Your task to perform on an android device: Open calendar and show me the first week of next month Image 0: 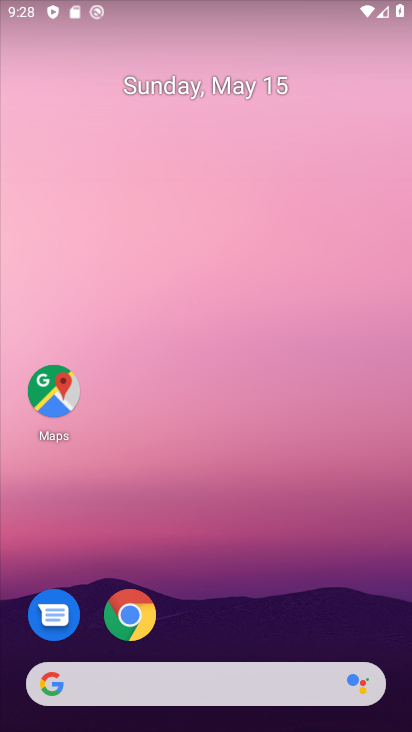
Step 0: drag from (177, 659) to (277, 194)
Your task to perform on an android device: Open calendar and show me the first week of next month Image 1: 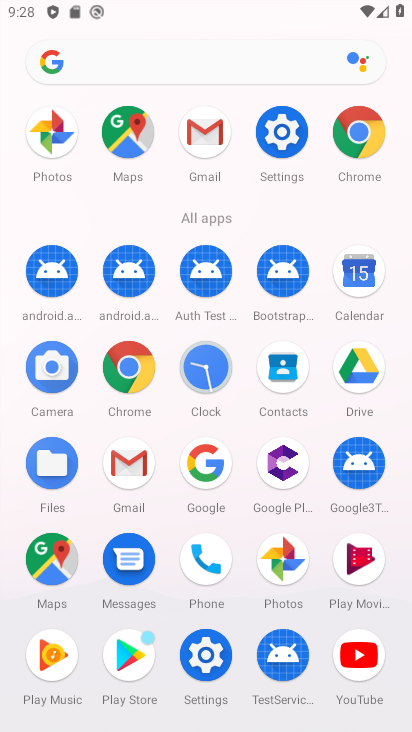
Step 1: click (368, 285)
Your task to perform on an android device: Open calendar and show me the first week of next month Image 2: 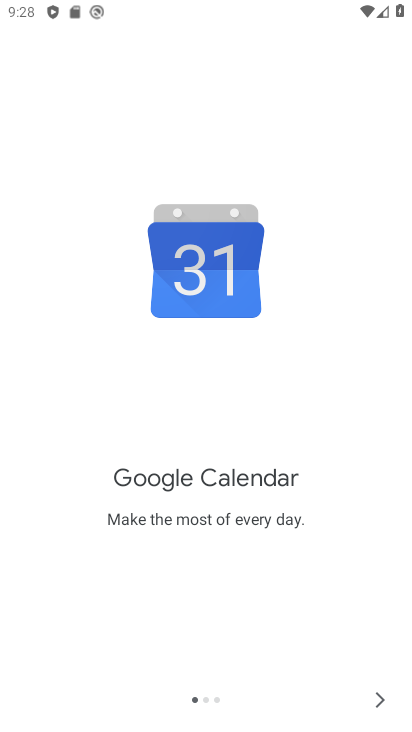
Step 2: click (389, 704)
Your task to perform on an android device: Open calendar and show me the first week of next month Image 3: 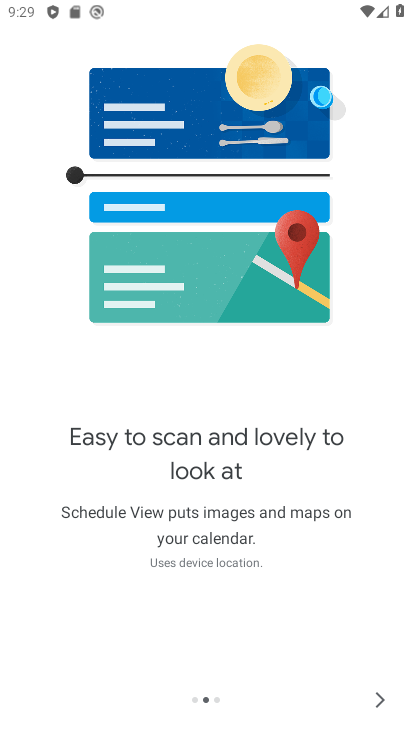
Step 3: click (389, 704)
Your task to perform on an android device: Open calendar and show me the first week of next month Image 4: 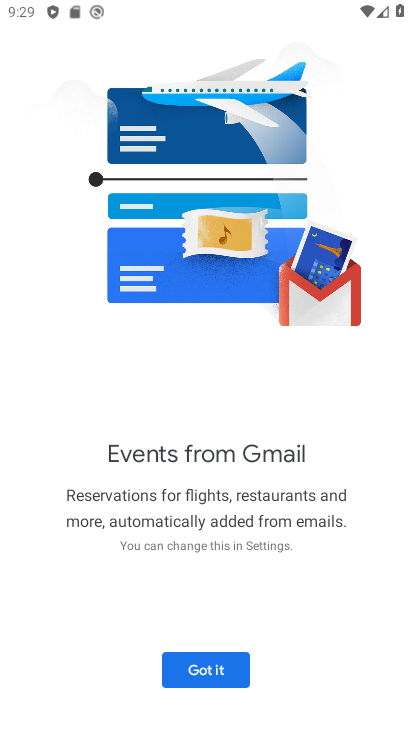
Step 4: click (213, 682)
Your task to perform on an android device: Open calendar and show me the first week of next month Image 5: 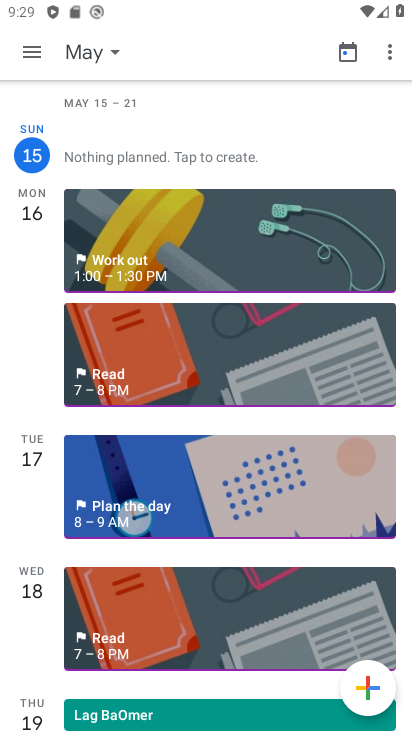
Step 5: click (106, 52)
Your task to perform on an android device: Open calendar and show me the first week of next month Image 6: 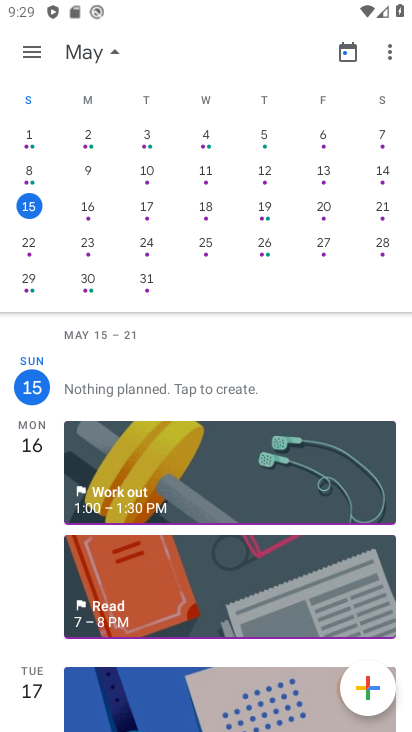
Step 6: drag from (347, 266) to (17, 252)
Your task to perform on an android device: Open calendar and show me the first week of next month Image 7: 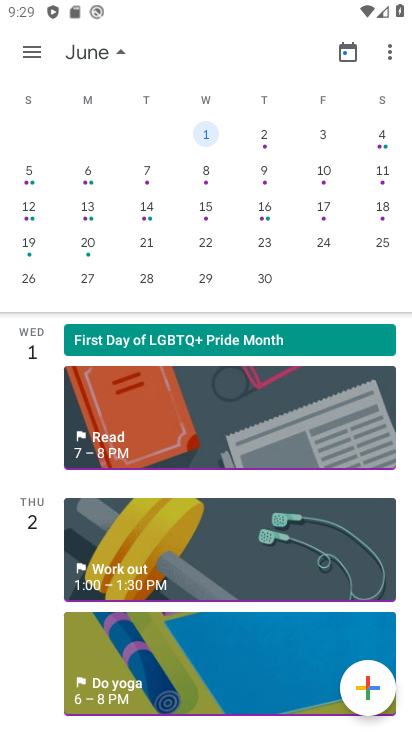
Step 7: click (31, 175)
Your task to perform on an android device: Open calendar and show me the first week of next month Image 8: 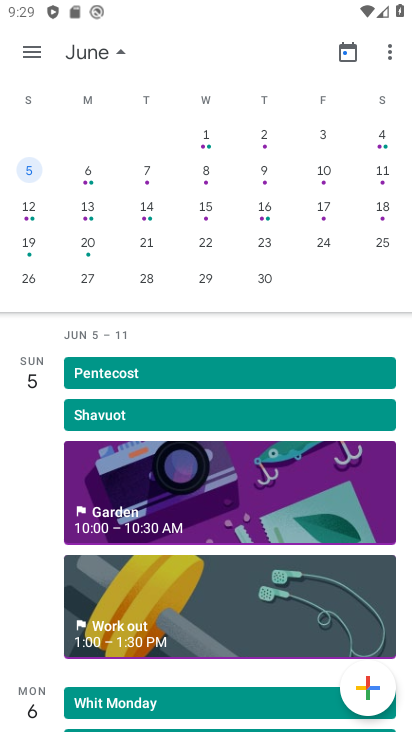
Step 8: click (33, 59)
Your task to perform on an android device: Open calendar and show me the first week of next month Image 9: 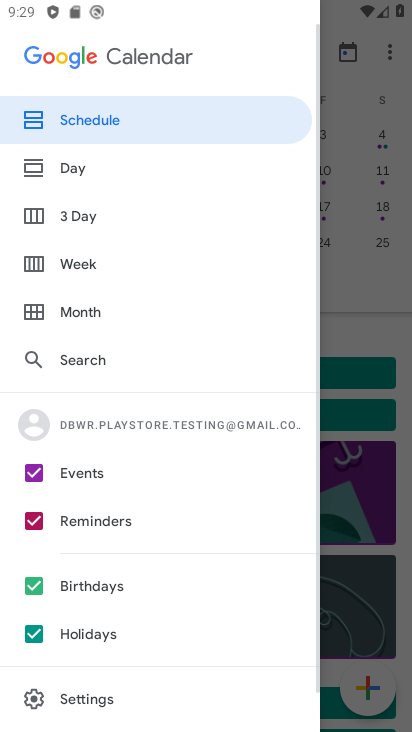
Step 9: click (98, 264)
Your task to perform on an android device: Open calendar and show me the first week of next month Image 10: 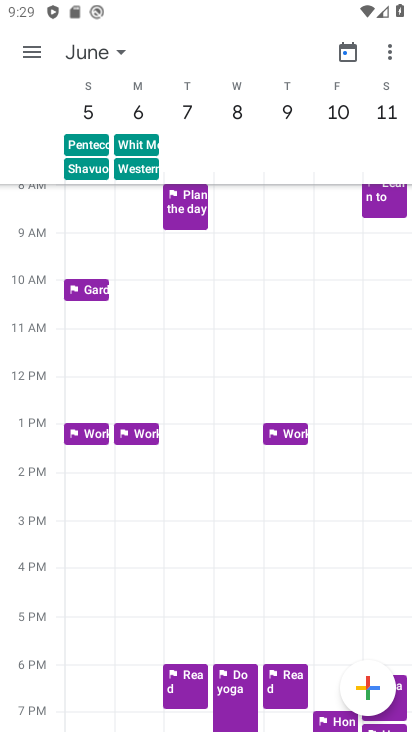
Step 10: task complete